Your task to perform on an android device: Open Yahoo.com Image 0: 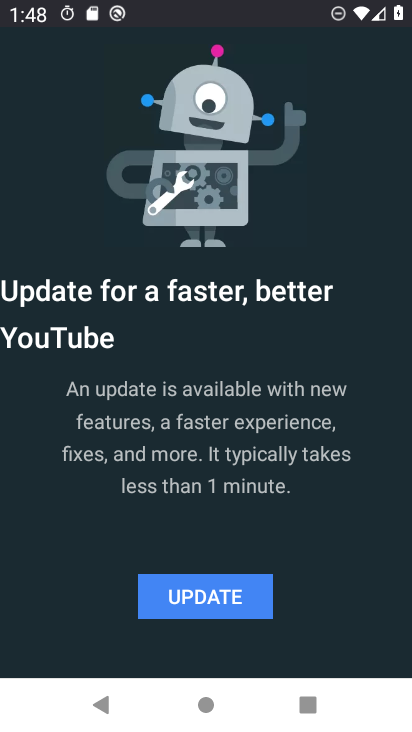
Step 0: press home button
Your task to perform on an android device: Open Yahoo.com Image 1: 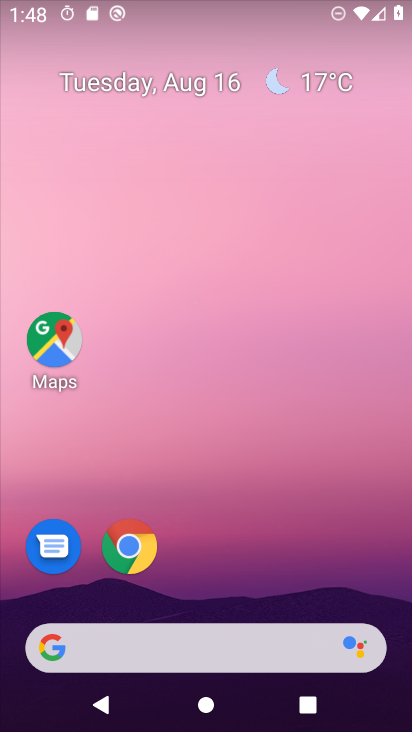
Step 1: click (123, 548)
Your task to perform on an android device: Open Yahoo.com Image 2: 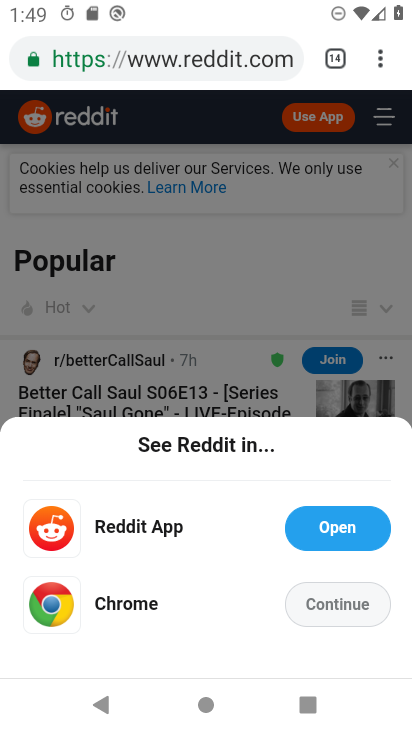
Step 2: click (380, 63)
Your task to perform on an android device: Open Yahoo.com Image 3: 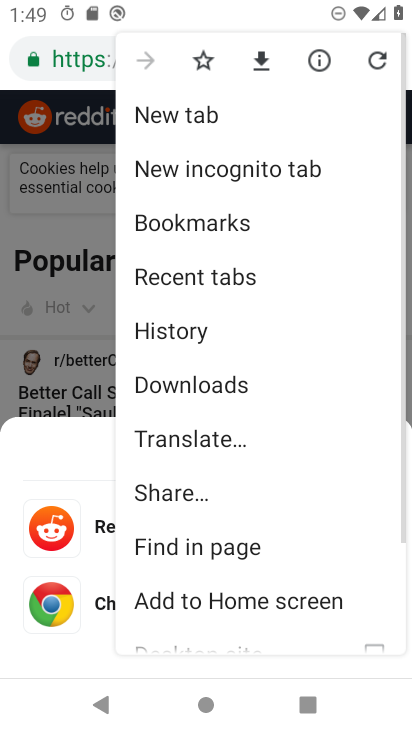
Step 3: click (182, 109)
Your task to perform on an android device: Open Yahoo.com Image 4: 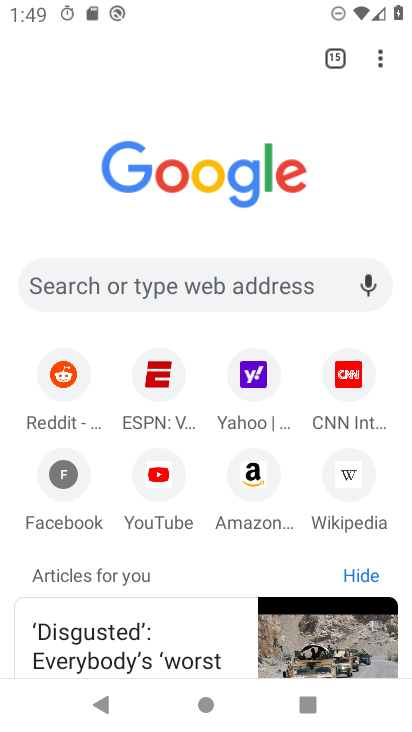
Step 4: click (253, 382)
Your task to perform on an android device: Open Yahoo.com Image 5: 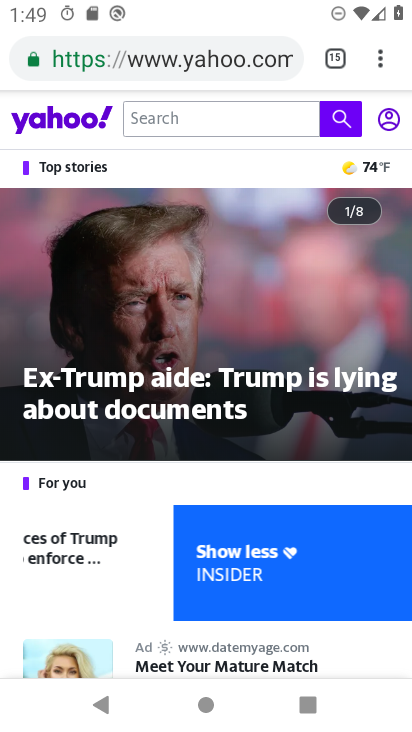
Step 5: task complete